Your task to perform on an android device: turn off translation in the chrome app Image 0: 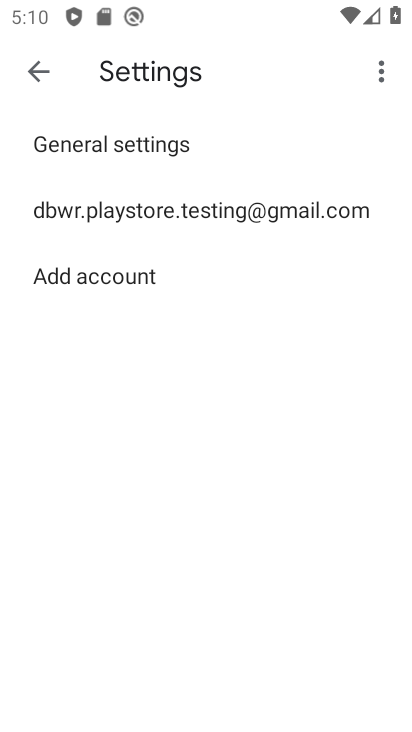
Step 0: press home button
Your task to perform on an android device: turn off translation in the chrome app Image 1: 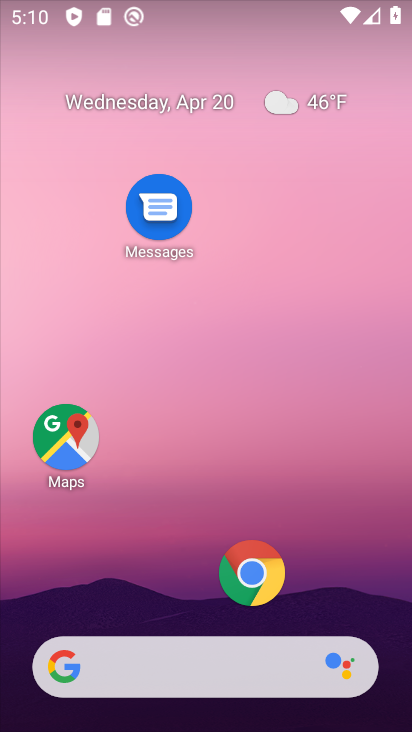
Step 1: click (249, 579)
Your task to perform on an android device: turn off translation in the chrome app Image 2: 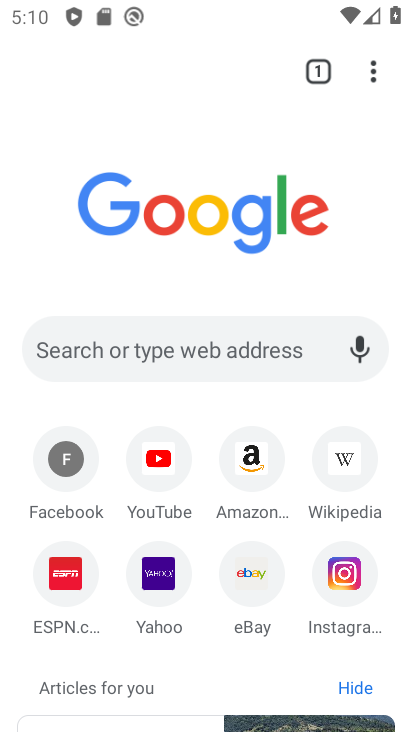
Step 2: drag from (377, 76) to (152, 587)
Your task to perform on an android device: turn off translation in the chrome app Image 3: 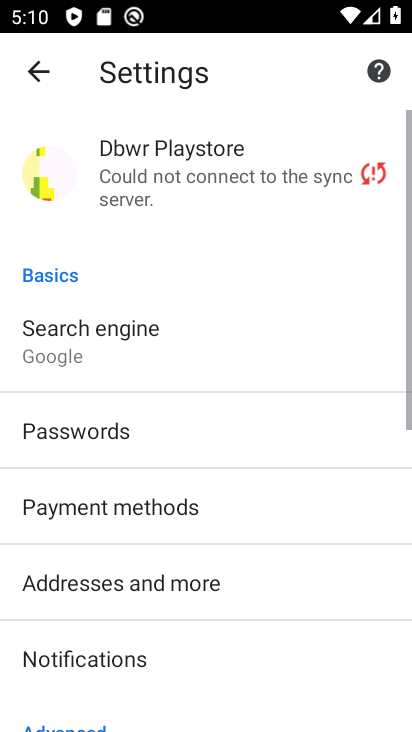
Step 3: drag from (156, 584) to (153, 217)
Your task to perform on an android device: turn off translation in the chrome app Image 4: 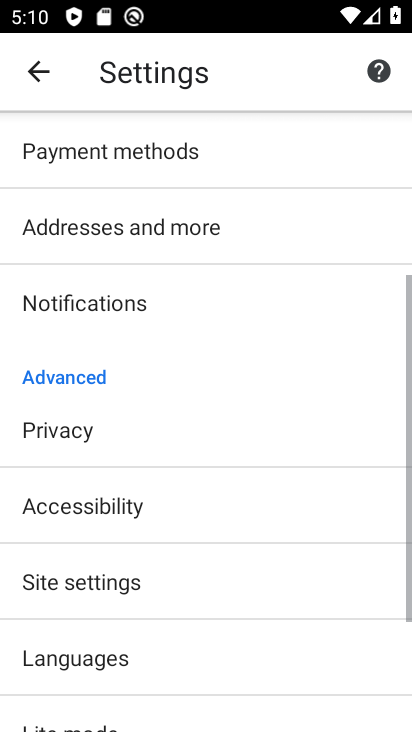
Step 4: click (93, 656)
Your task to perform on an android device: turn off translation in the chrome app Image 5: 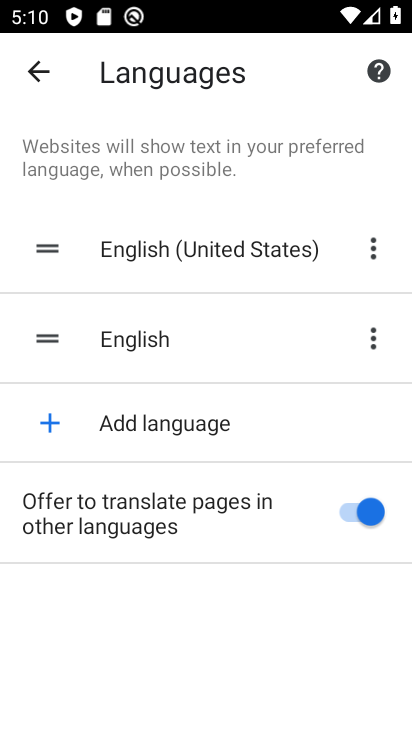
Step 5: click (348, 514)
Your task to perform on an android device: turn off translation in the chrome app Image 6: 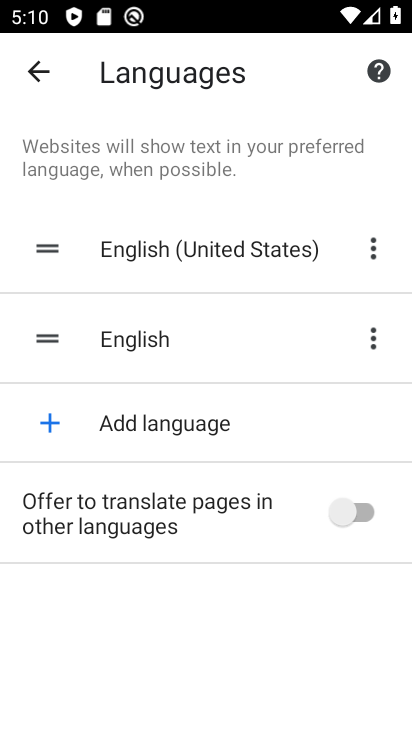
Step 6: task complete